Your task to perform on an android device: toggle notifications settings in the gmail app Image 0: 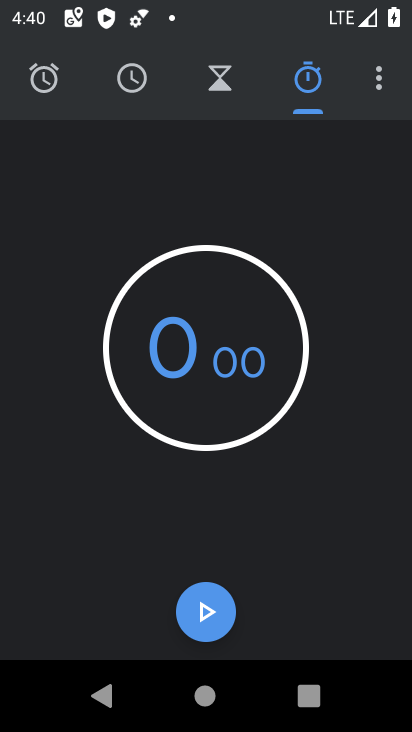
Step 0: press home button
Your task to perform on an android device: toggle notifications settings in the gmail app Image 1: 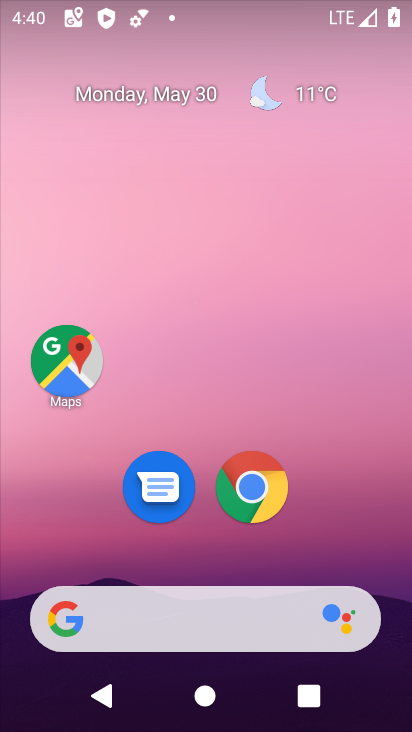
Step 1: drag from (395, 632) to (363, 55)
Your task to perform on an android device: toggle notifications settings in the gmail app Image 2: 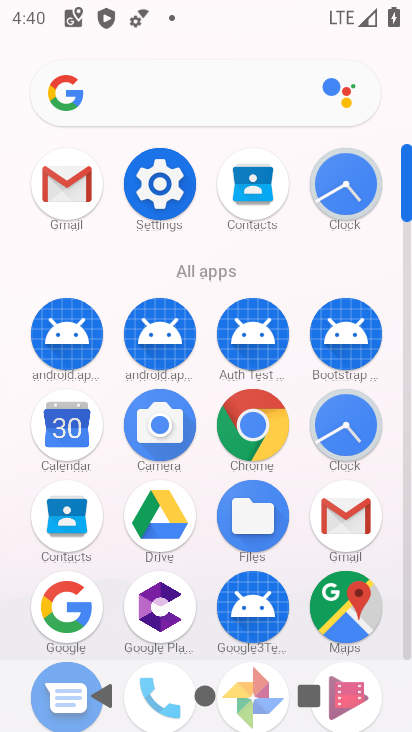
Step 2: click (340, 508)
Your task to perform on an android device: toggle notifications settings in the gmail app Image 3: 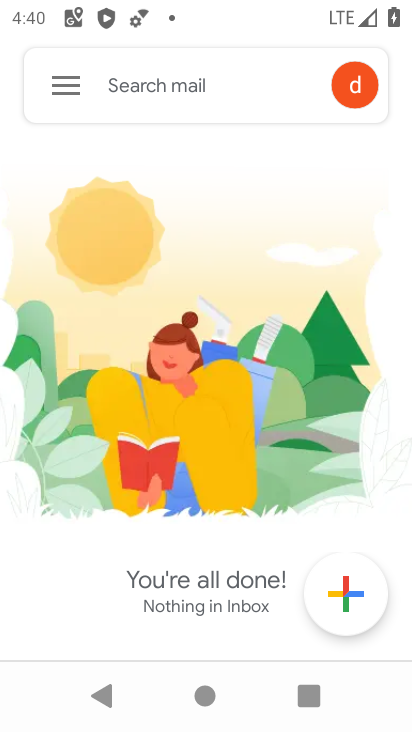
Step 3: click (61, 86)
Your task to perform on an android device: toggle notifications settings in the gmail app Image 4: 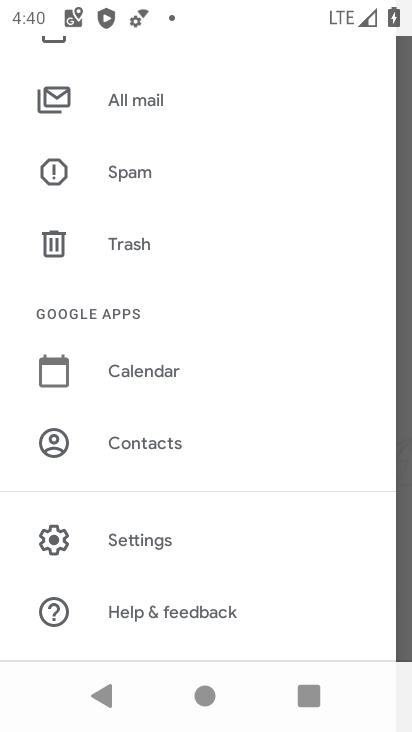
Step 4: click (152, 532)
Your task to perform on an android device: toggle notifications settings in the gmail app Image 5: 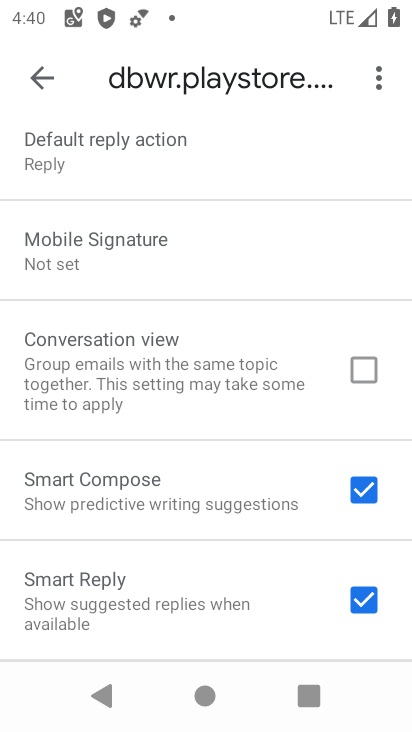
Step 5: drag from (294, 221) to (259, 623)
Your task to perform on an android device: toggle notifications settings in the gmail app Image 6: 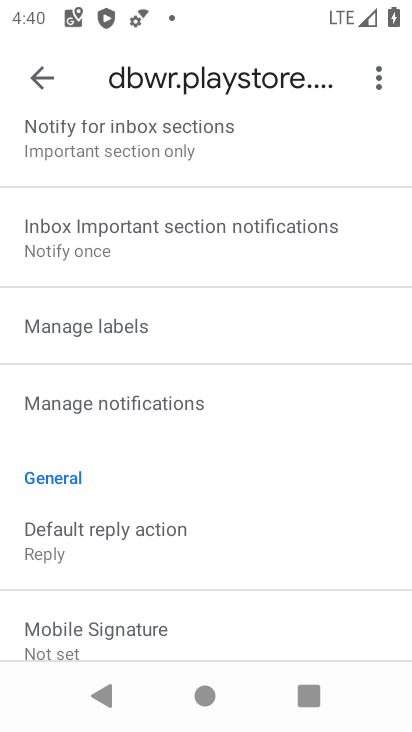
Step 6: drag from (319, 226) to (281, 229)
Your task to perform on an android device: toggle notifications settings in the gmail app Image 7: 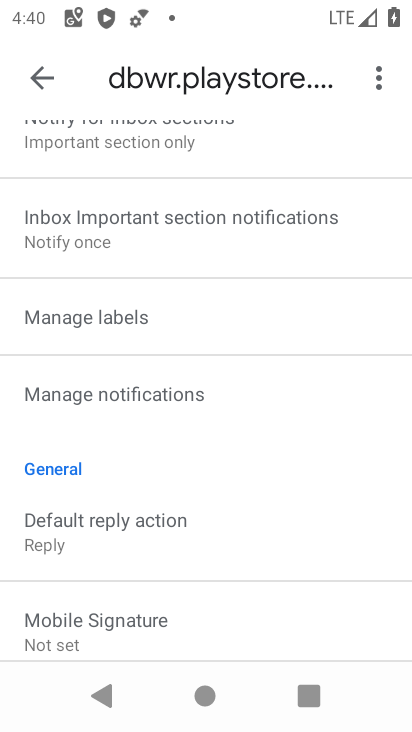
Step 7: click (109, 397)
Your task to perform on an android device: toggle notifications settings in the gmail app Image 8: 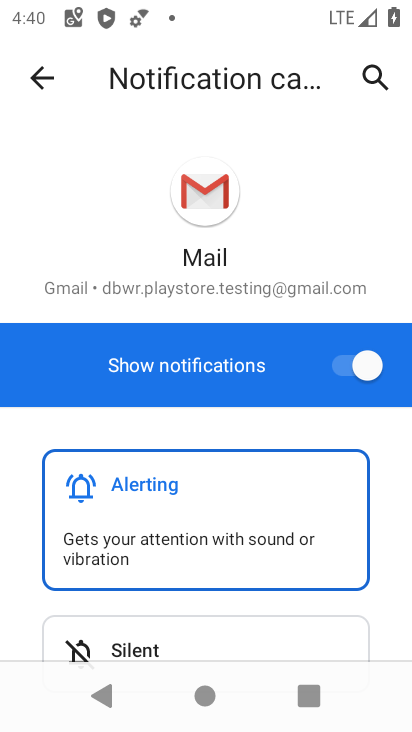
Step 8: click (334, 362)
Your task to perform on an android device: toggle notifications settings in the gmail app Image 9: 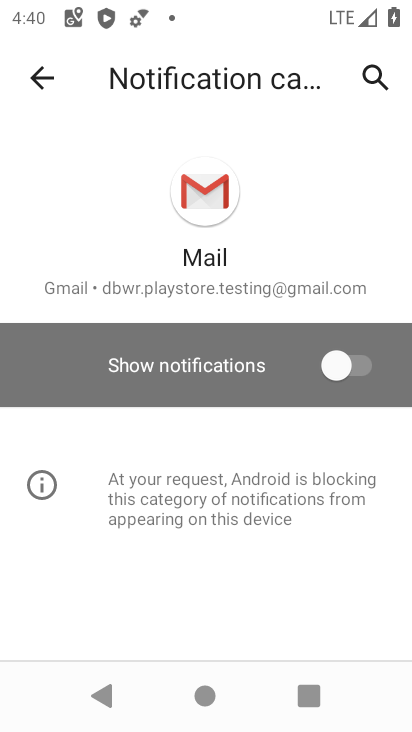
Step 9: task complete